Your task to perform on an android device: set an alarm Image 0: 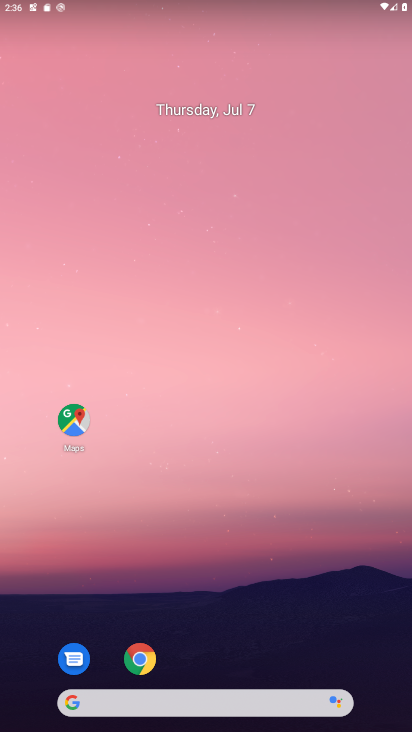
Step 0: drag from (192, 524) to (275, 161)
Your task to perform on an android device: set an alarm Image 1: 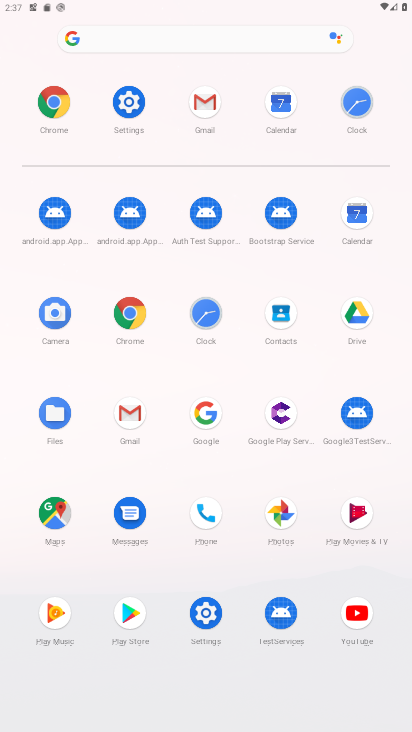
Step 1: click (197, 305)
Your task to perform on an android device: set an alarm Image 2: 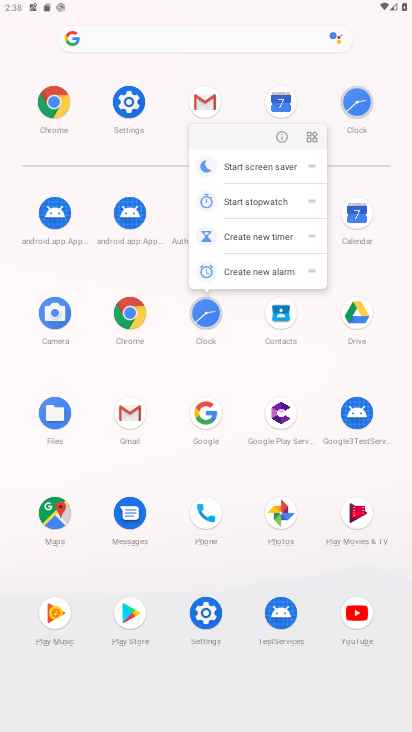
Step 2: drag from (130, 534) to (407, 197)
Your task to perform on an android device: set an alarm Image 3: 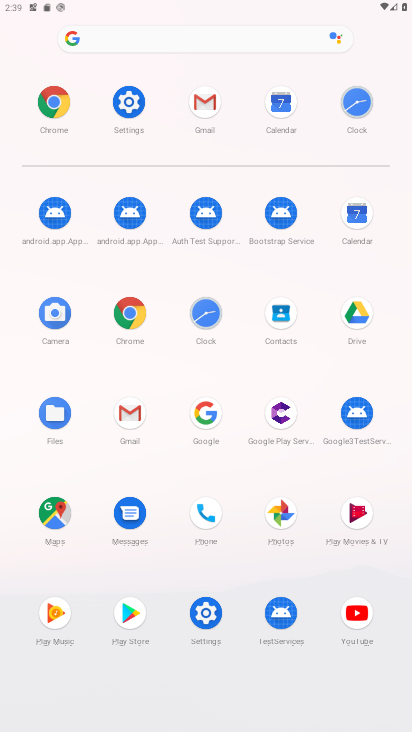
Step 3: click (134, 385)
Your task to perform on an android device: set an alarm Image 4: 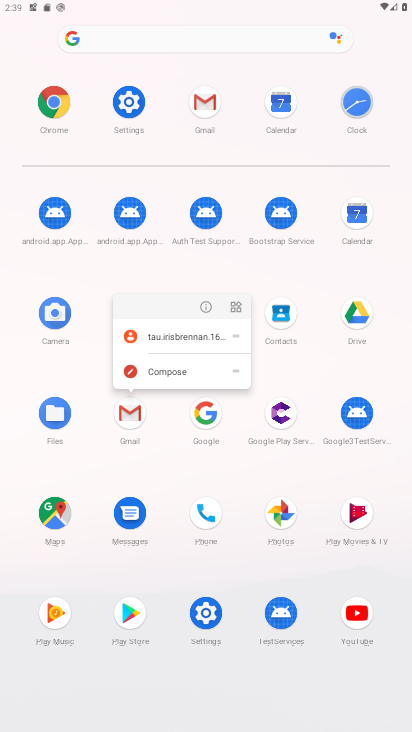
Step 4: click (208, 301)
Your task to perform on an android device: set an alarm Image 5: 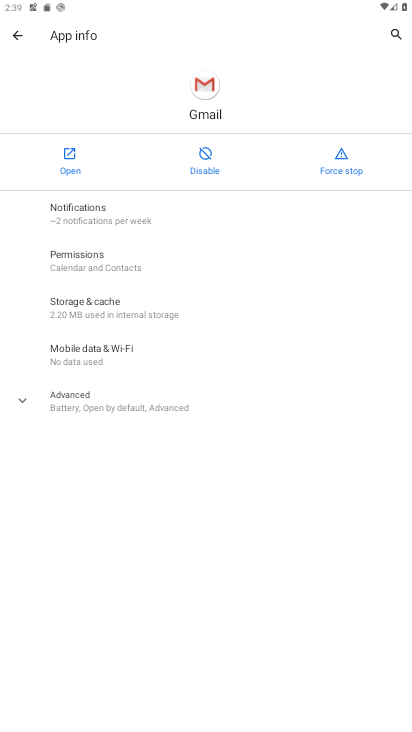
Step 5: press home button
Your task to perform on an android device: set an alarm Image 6: 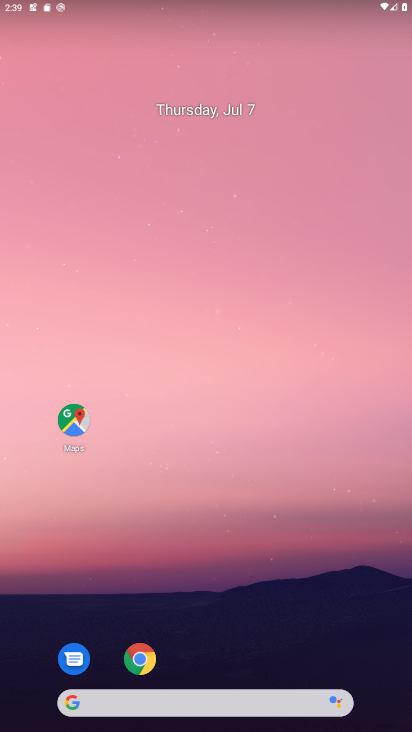
Step 6: drag from (193, 649) to (223, 304)
Your task to perform on an android device: set an alarm Image 7: 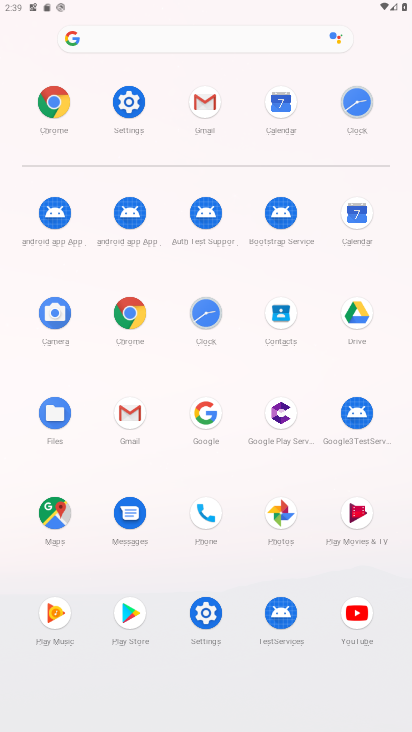
Step 7: click (186, 319)
Your task to perform on an android device: set an alarm Image 8: 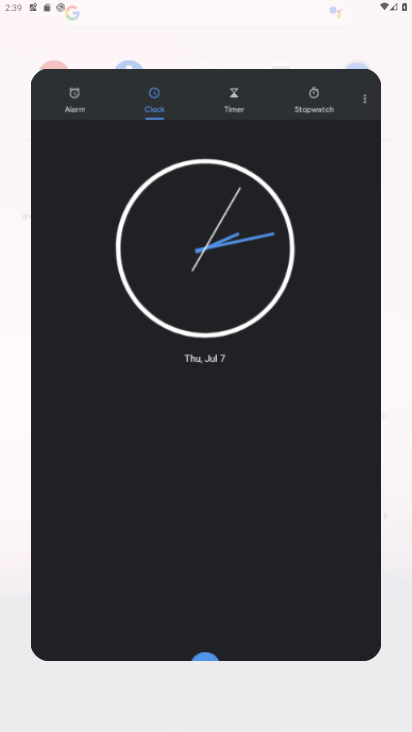
Step 8: click (205, 324)
Your task to perform on an android device: set an alarm Image 9: 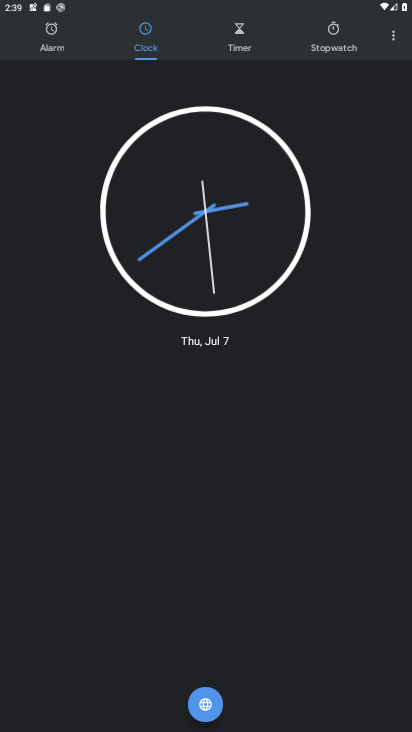
Step 9: click (205, 324)
Your task to perform on an android device: set an alarm Image 10: 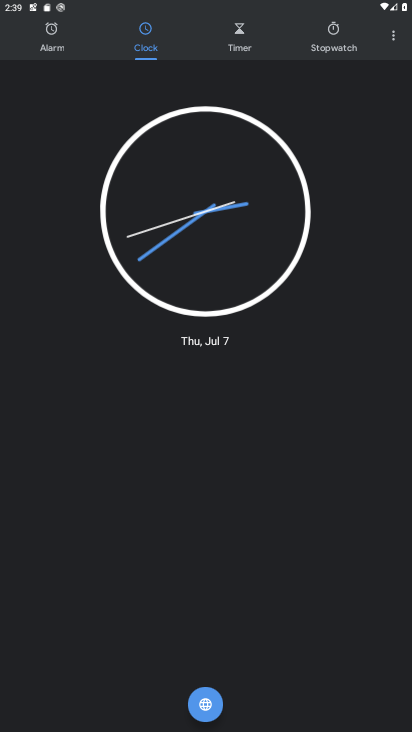
Step 10: click (51, 45)
Your task to perform on an android device: set an alarm Image 11: 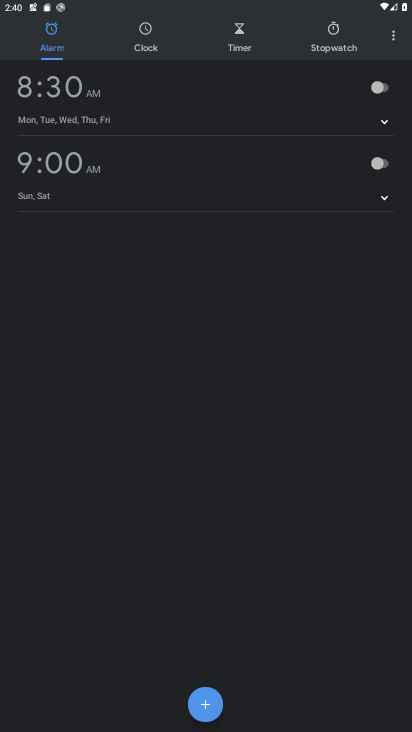
Step 11: drag from (132, 677) to (253, 438)
Your task to perform on an android device: set an alarm Image 12: 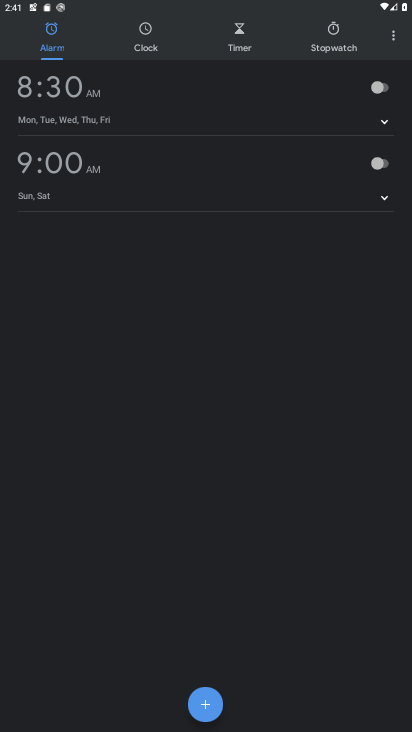
Step 12: click (188, 235)
Your task to perform on an android device: set an alarm Image 13: 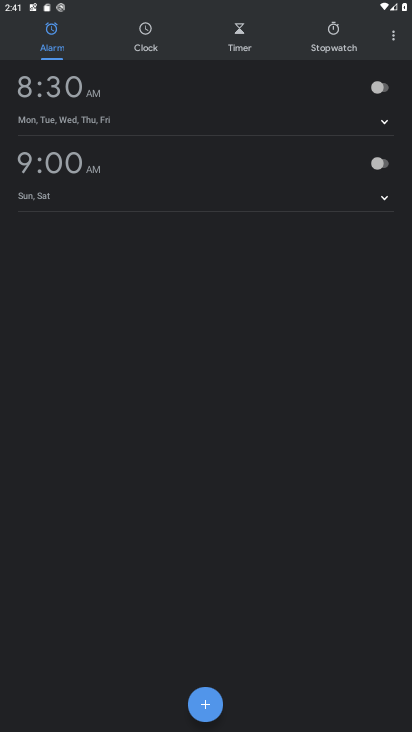
Step 13: click (382, 169)
Your task to perform on an android device: set an alarm Image 14: 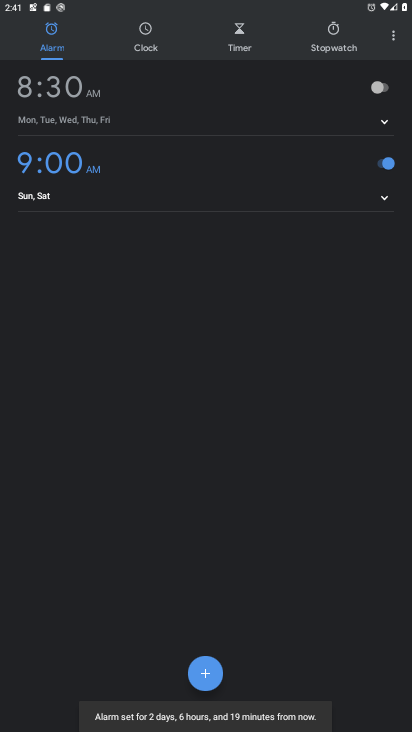
Step 14: task complete